Your task to perform on an android device: all mails in gmail Image 0: 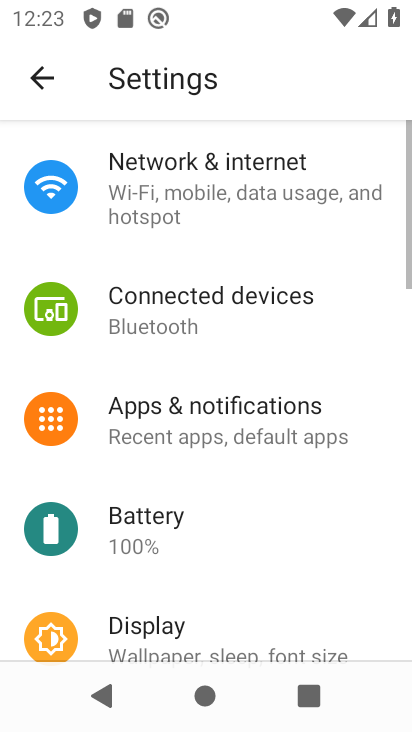
Step 0: press home button
Your task to perform on an android device: all mails in gmail Image 1: 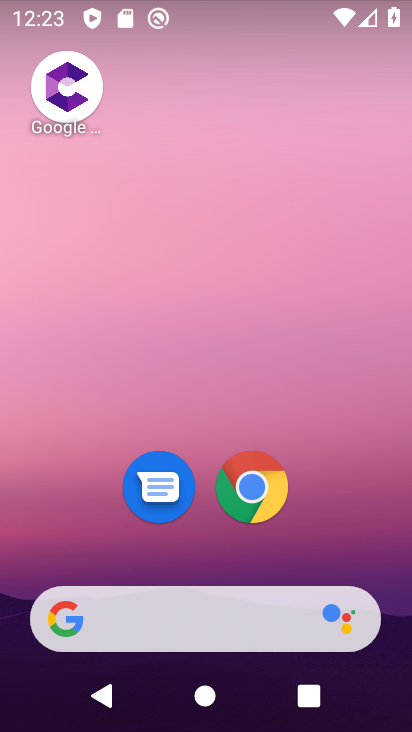
Step 1: drag from (90, 590) to (216, 26)
Your task to perform on an android device: all mails in gmail Image 2: 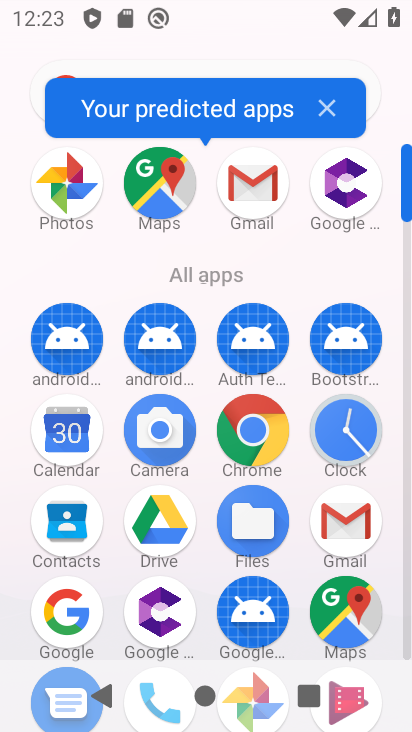
Step 2: click (363, 523)
Your task to perform on an android device: all mails in gmail Image 3: 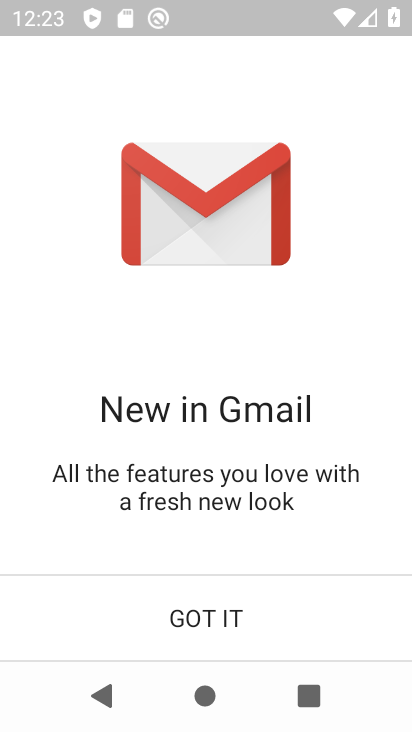
Step 3: click (238, 600)
Your task to perform on an android device: all mails in gmail Image 4: 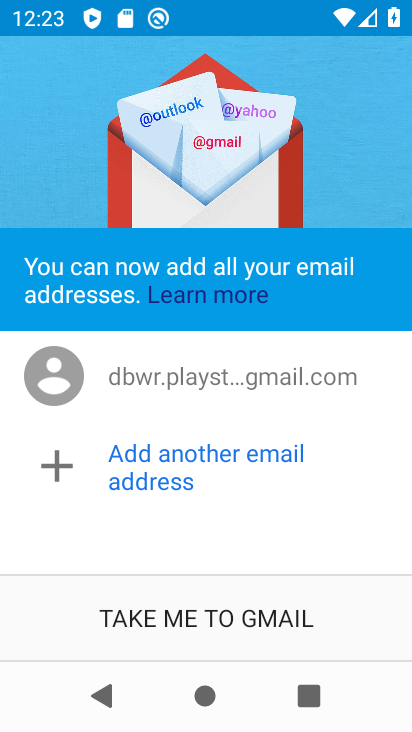
Step 4: click (259, 617)
Your task to perform on an android device: all mails in gmail Image 5: 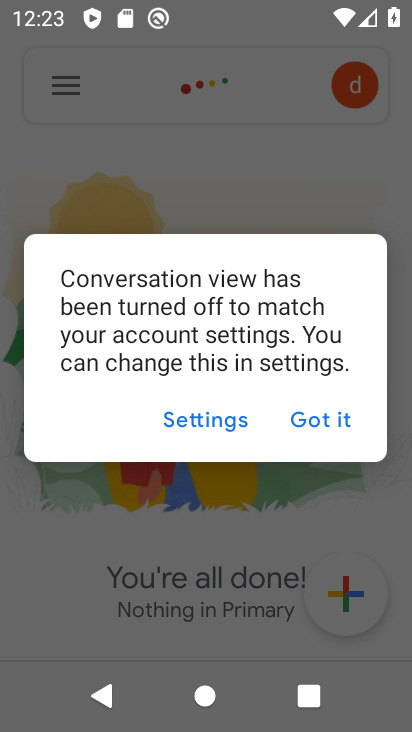
Step 5: click (321, 430)
Your task to perform on an android device: all mails in gmail Image 6: 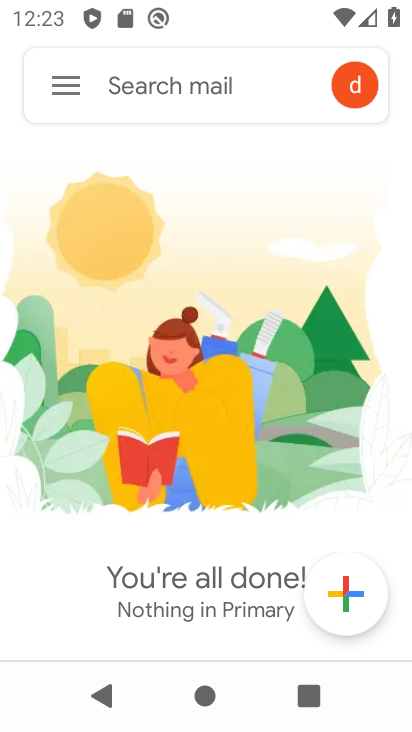
Step 6: click (83, 90)
Your task to perform on an android device: all mails in gmail Image 7: 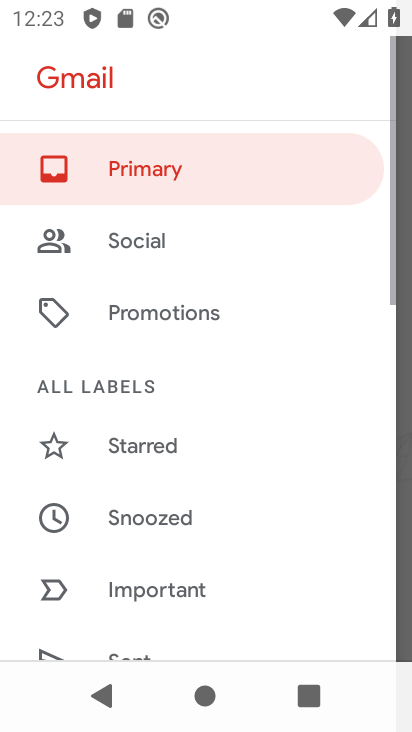
Step 7: drag from (125, 583) to (247, 125)
Your task to perform on an android device: all mails in gmail Image 8: 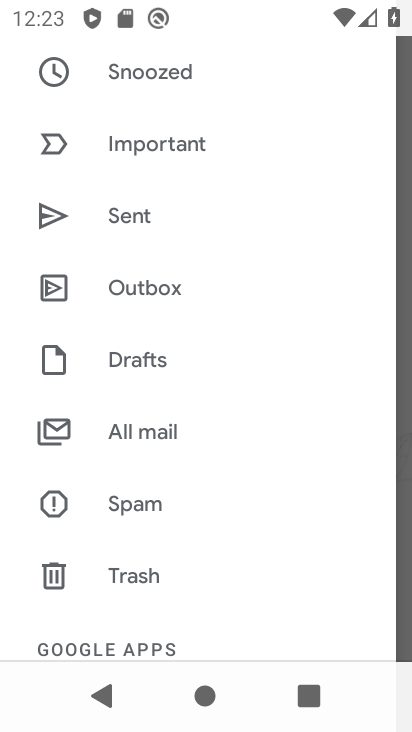
Step 8: click (175, 429)
Your task to perform on an android device: all mails in gmail Image 9: 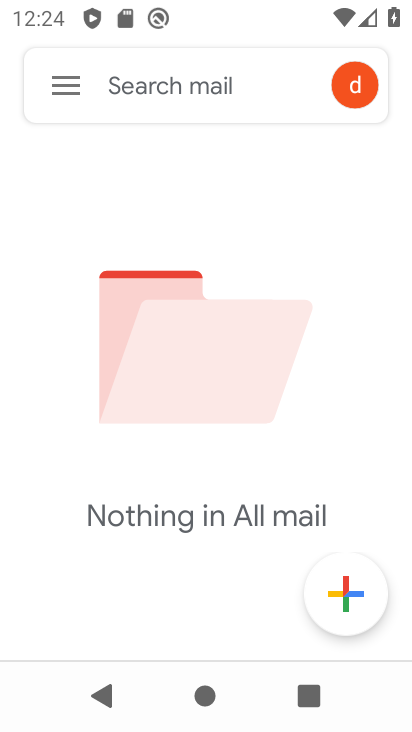
Step 9: task complete